Your task to perform on an android device: toggle pop-ups in chrome Image 0: 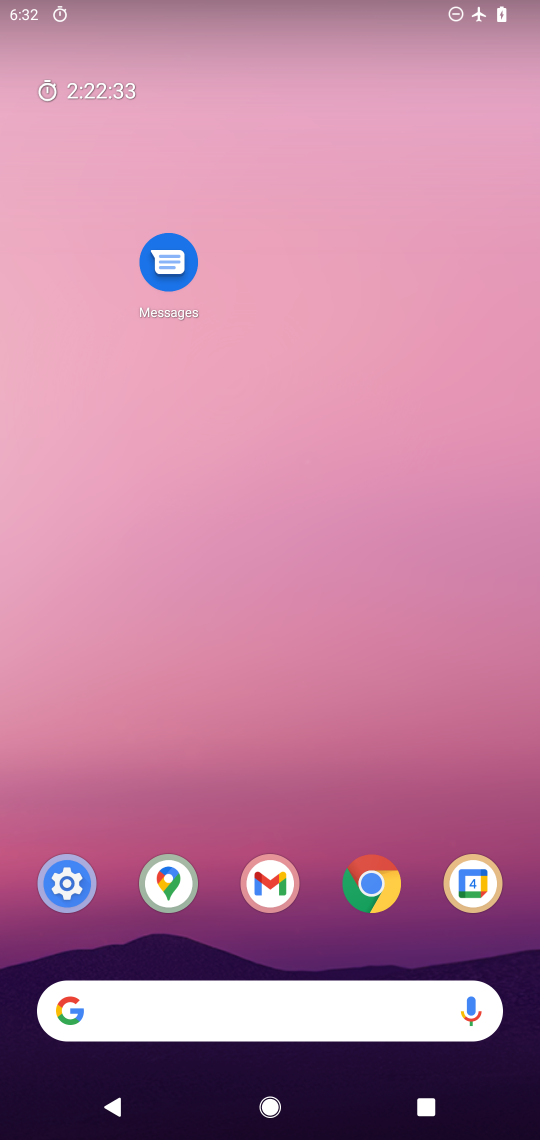
Step 0: click (377, 886)
Your task to perform on an android device: toggle pop-ups in chrome Image 1: 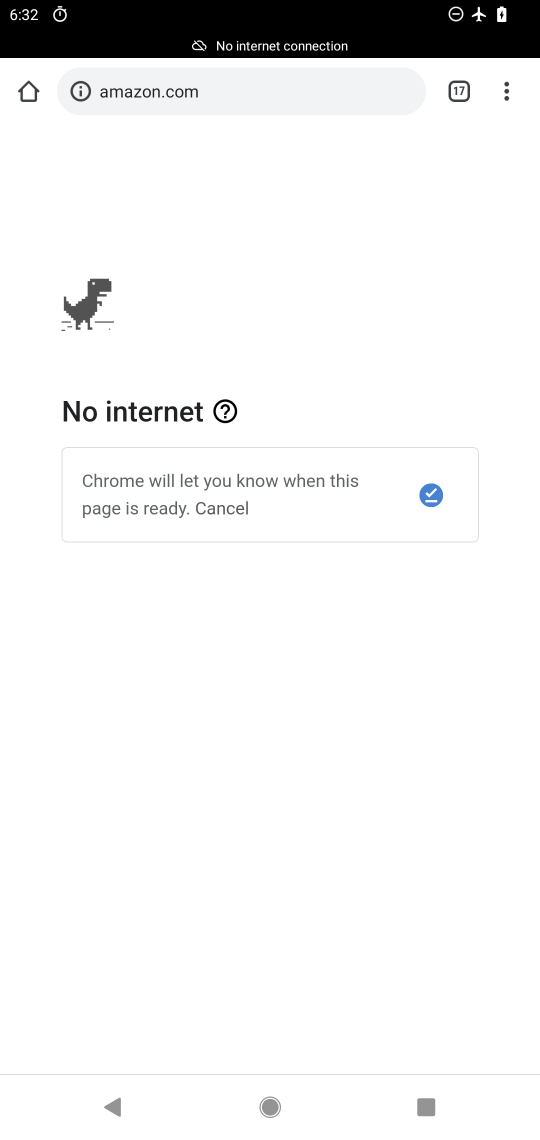
Step 1: click (505, 98)
Your task to perform on an android device: toggle pop-ups in chrome Image 2: 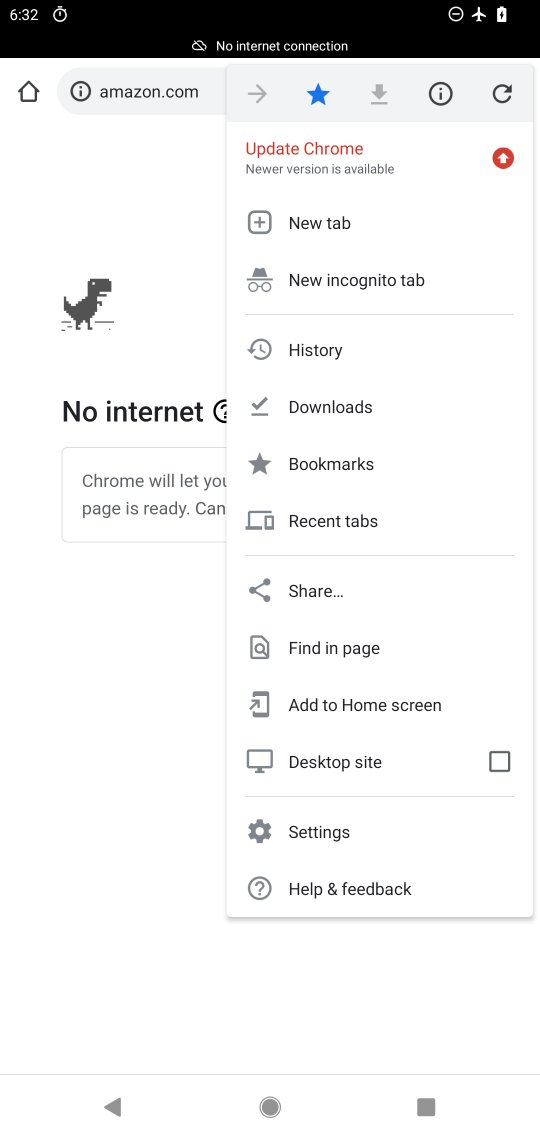
Step 2: click (324, 825)
Your task to perform on an android device: toggle pop-ups in chrome Image 3: 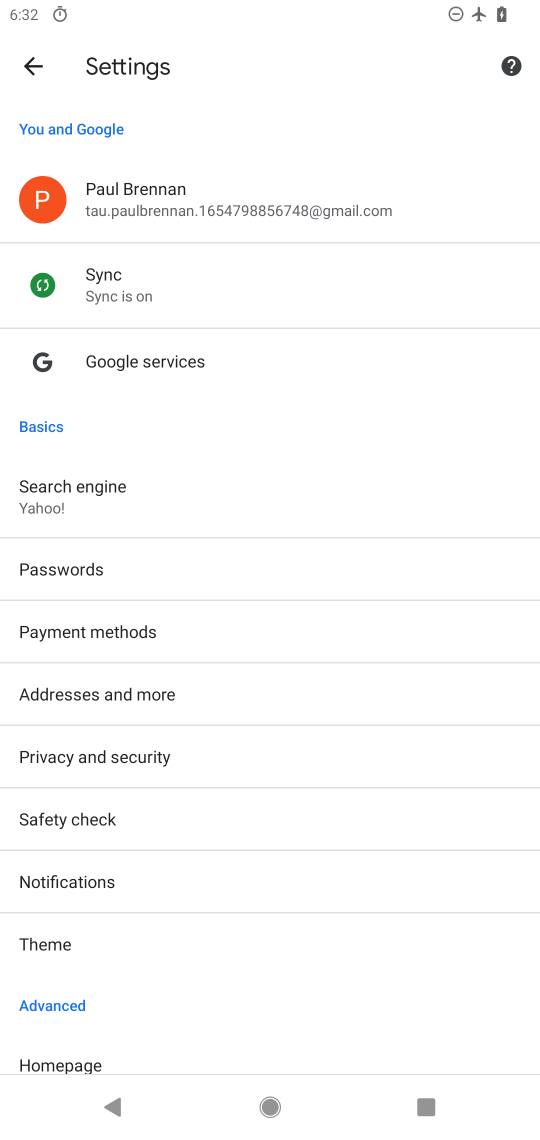
Step 3: drag from (241, 941) to (195, 323)
Your task to perform on an android device: toggle pop-ups in chrome Image 4: 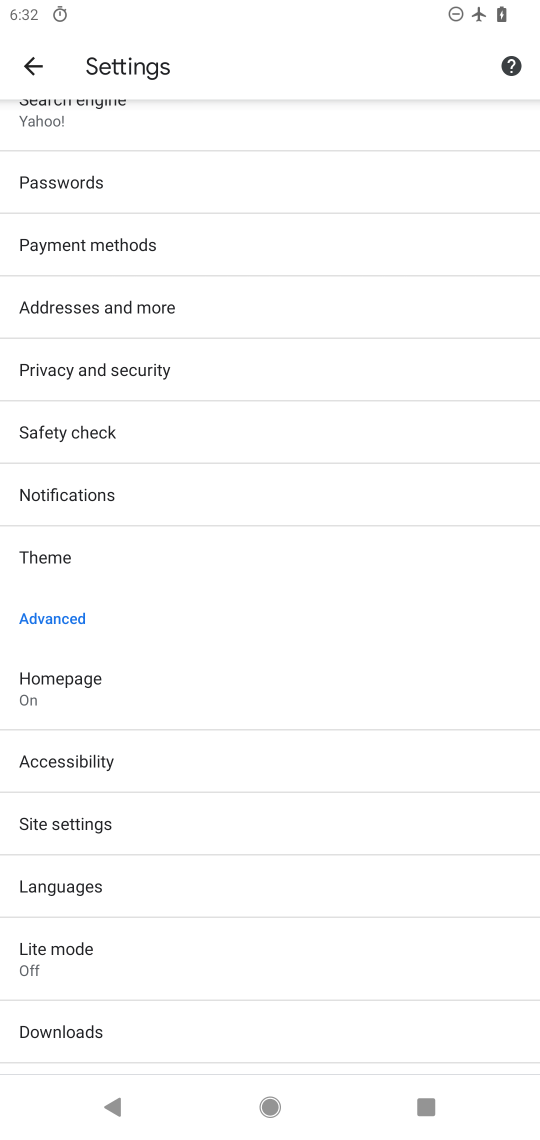
Step 4: drag from (133, 962) to (120, 643)
Your task to perform on an android device: toggle pop-ups in chrome Image 5: 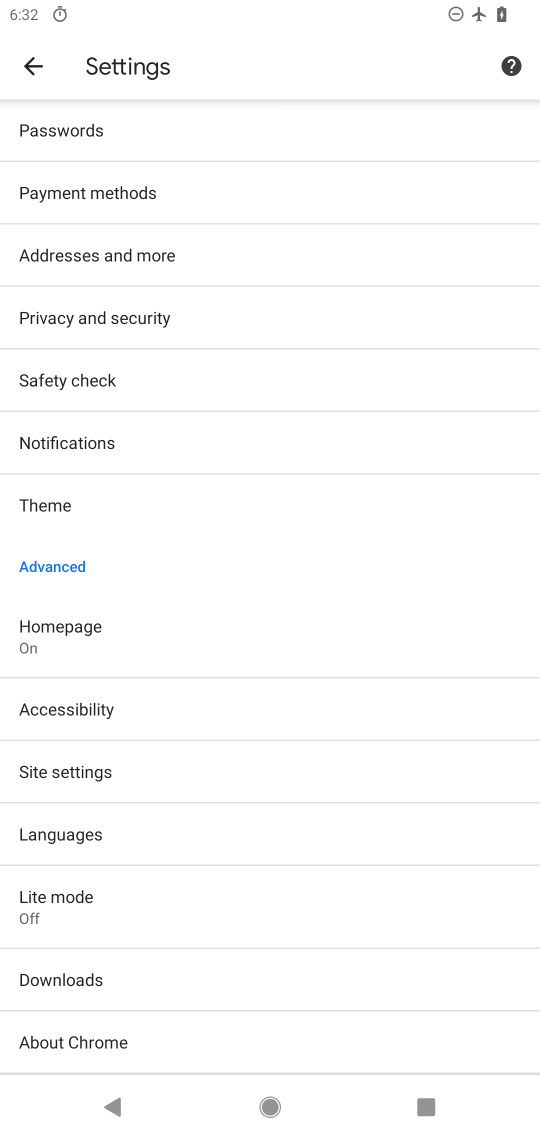
Step 5: click (102, 767)
Your task to perform on an android device: toggle pop-ups in chrome Image 6: 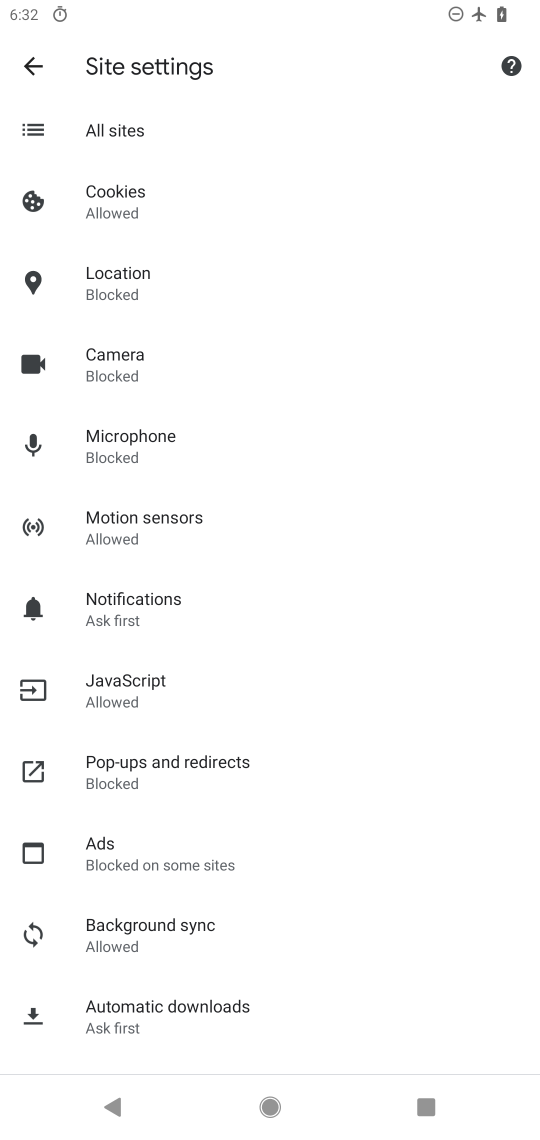
Step 6: click (175, 760)
Your task to perform on an android device: toggle pop-ups in chrome Image 7: 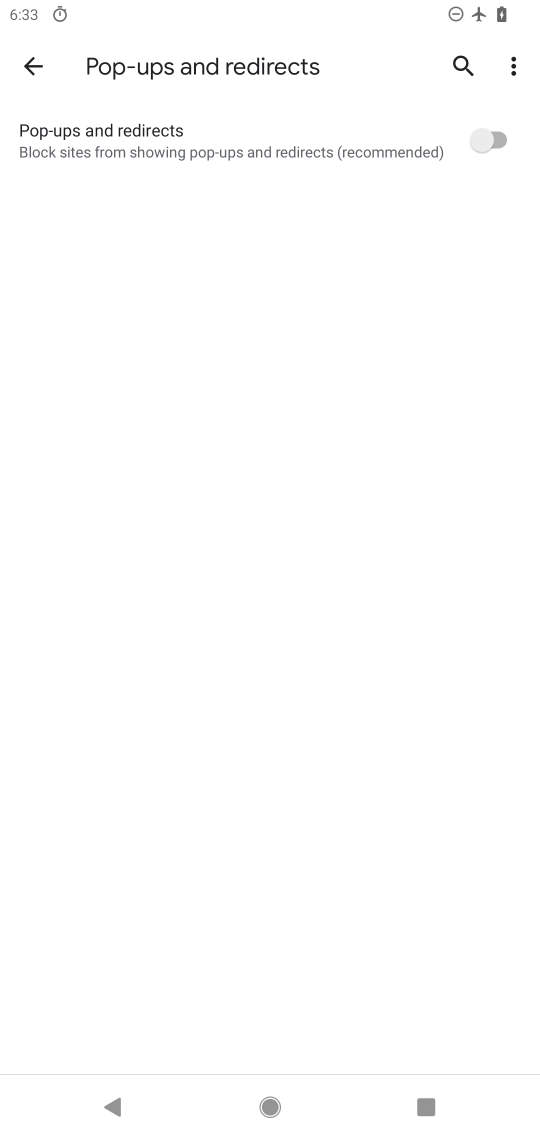
Step 7: click (494, 142)
Your task to perform on an android device: toggle pop-ups in chrome Image 8: 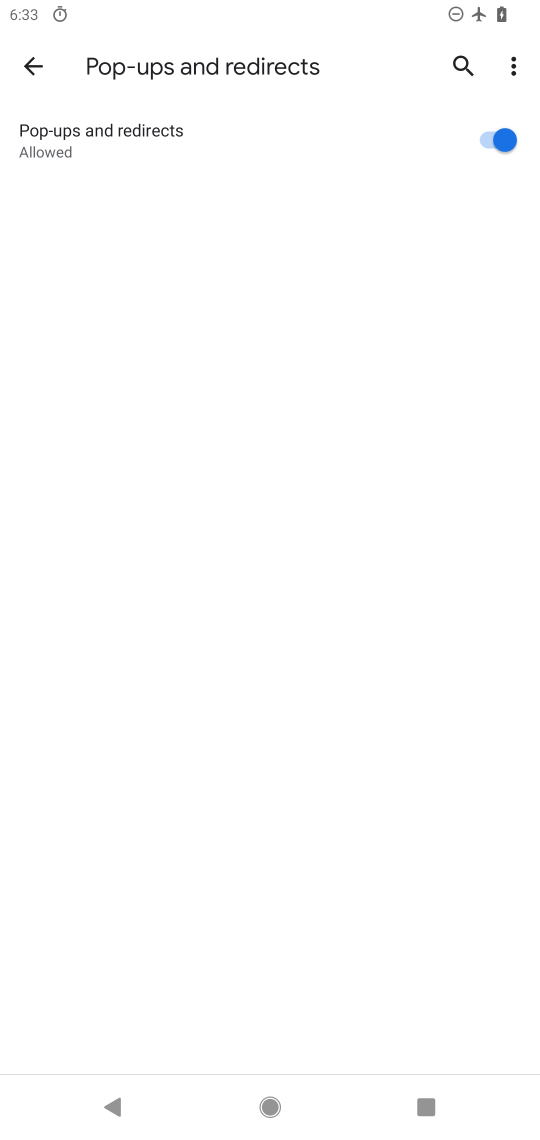
Step 8: task complete